Your task to perform on an android device: Check the news Image 0: 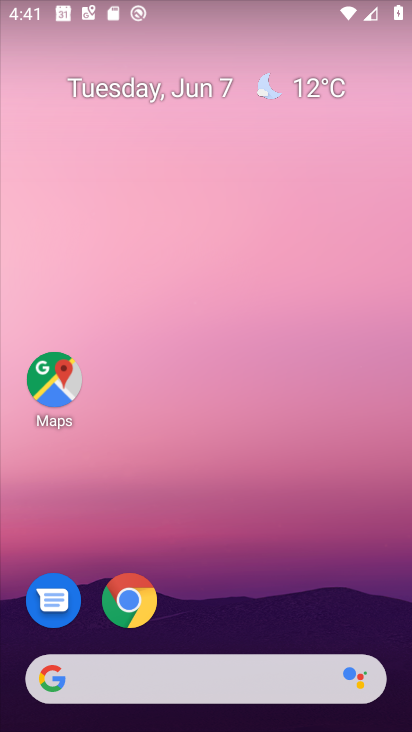
Step 0: drag from (267, 606) to (283, 79)
Your task to perform on an android device: Check the news Image 1: 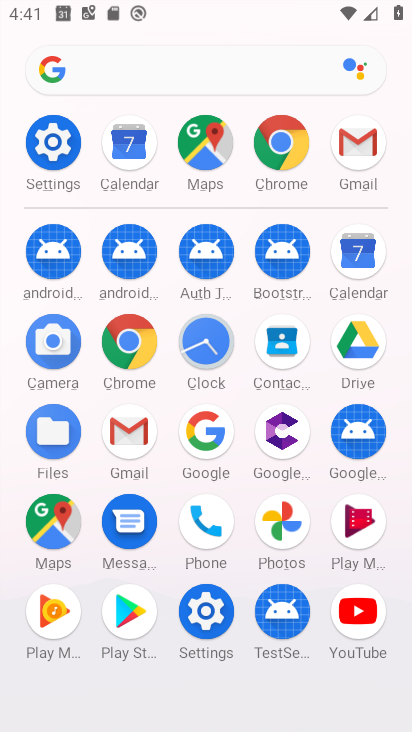
Step 1: click (133, 347)
Your task to perform on an android device: Check the news Image 2: 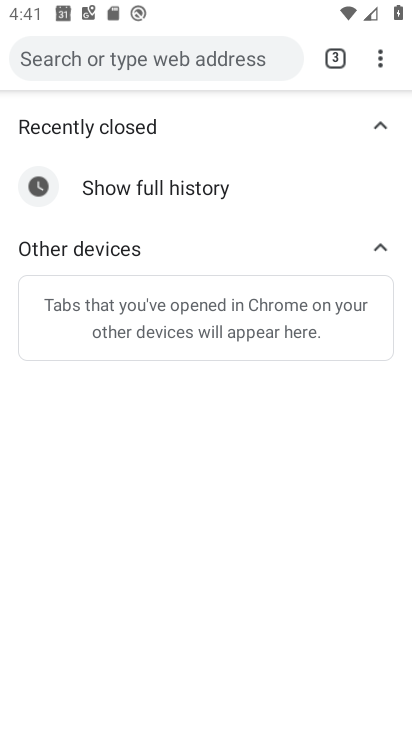
Step 2: click (264, 62)
Your task to perform on an android device: Check the news Image 3: 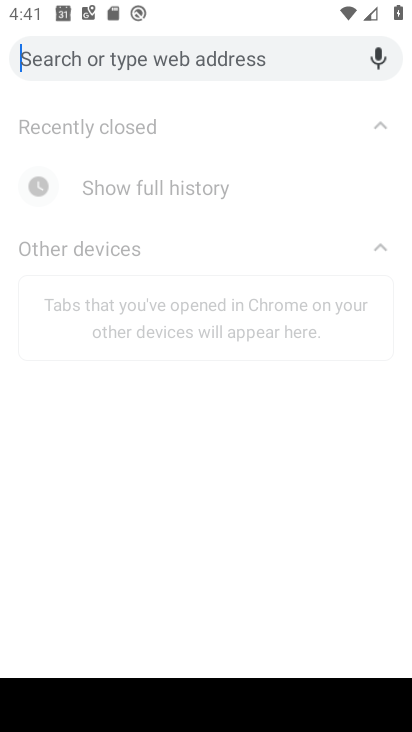
Step 3: type "news"
Your task to perform on an android device: Check the news Image 4: 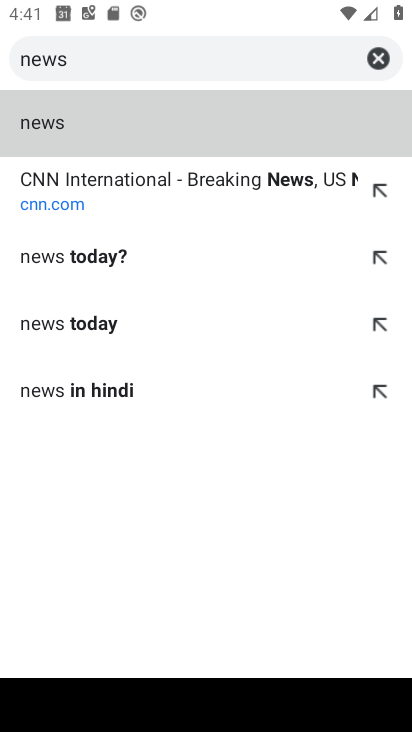
Step 4: click (38, 125)
Your task to perform on an android device: Check the news Image 5: 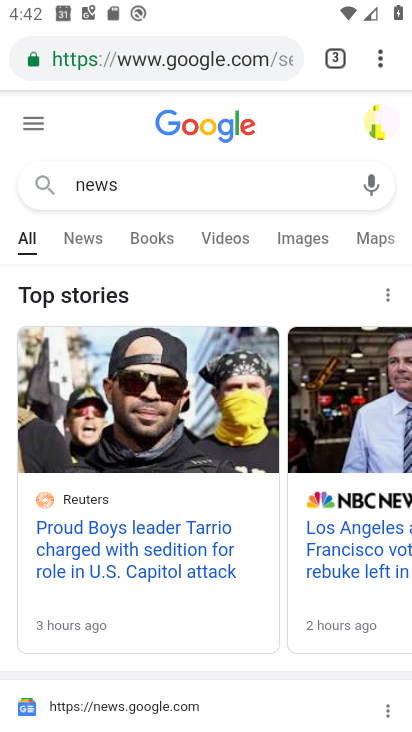
Step 5: click (107, 248)
Your task to perform on an android device: Check the news Image 6: 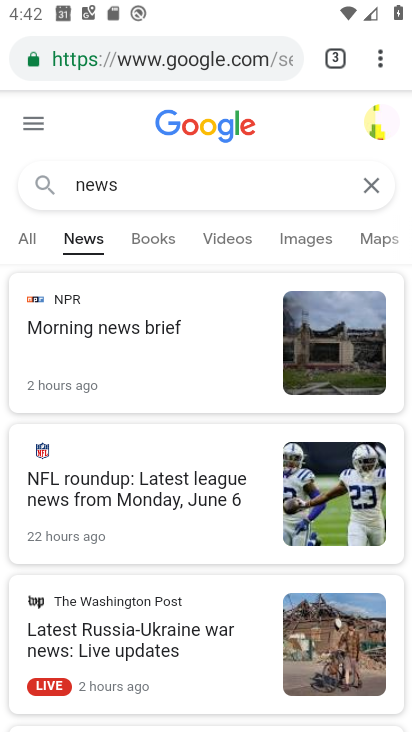
Step 6: task complete